Your task to perform on an android device: Search for flights from Sydney to Helsinki Image 0: 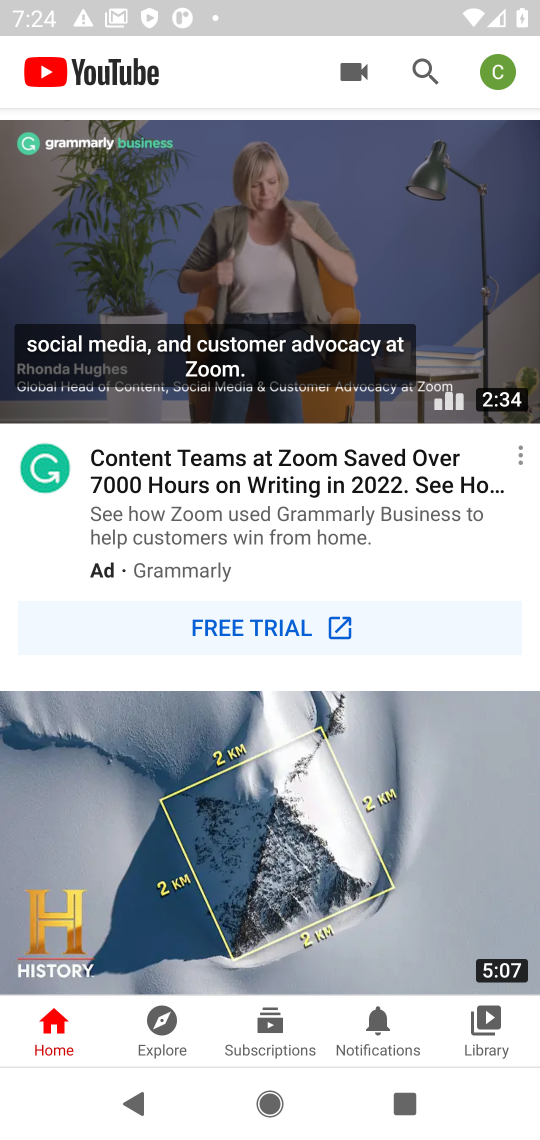
Step 0: press back button
Your task to perform on an android device: Search for flights from Sydney to Helsinki Image 1: 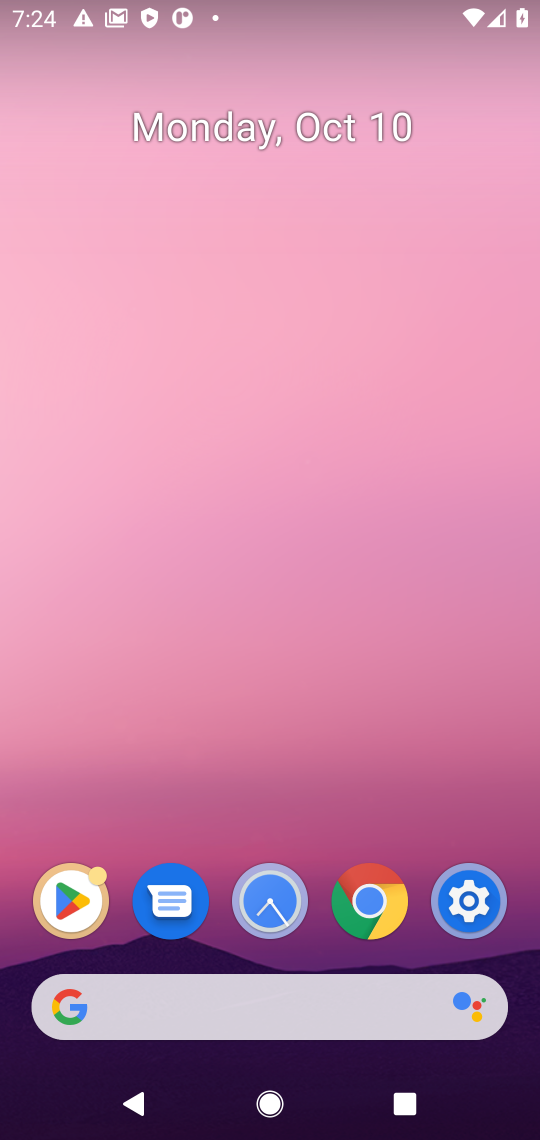
Step 1: press back button
Your task to perform on an android device: Search for flights from Sydney to Helsinki Image 2: 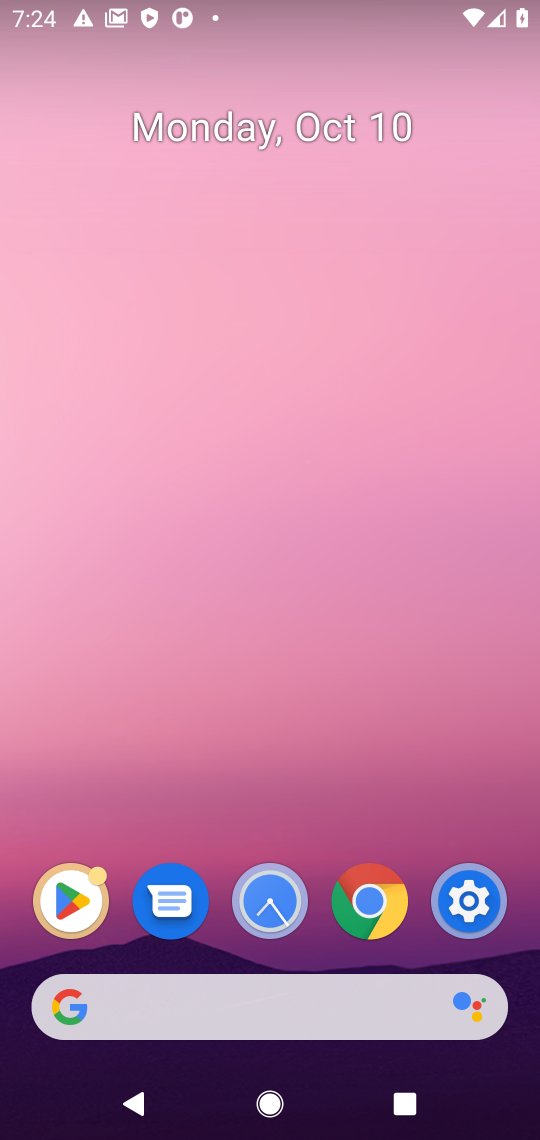
Step 2: click (259, 1001)
Your task to perform on an android device: Search for flights from Sydney to Helsinki Image 3: 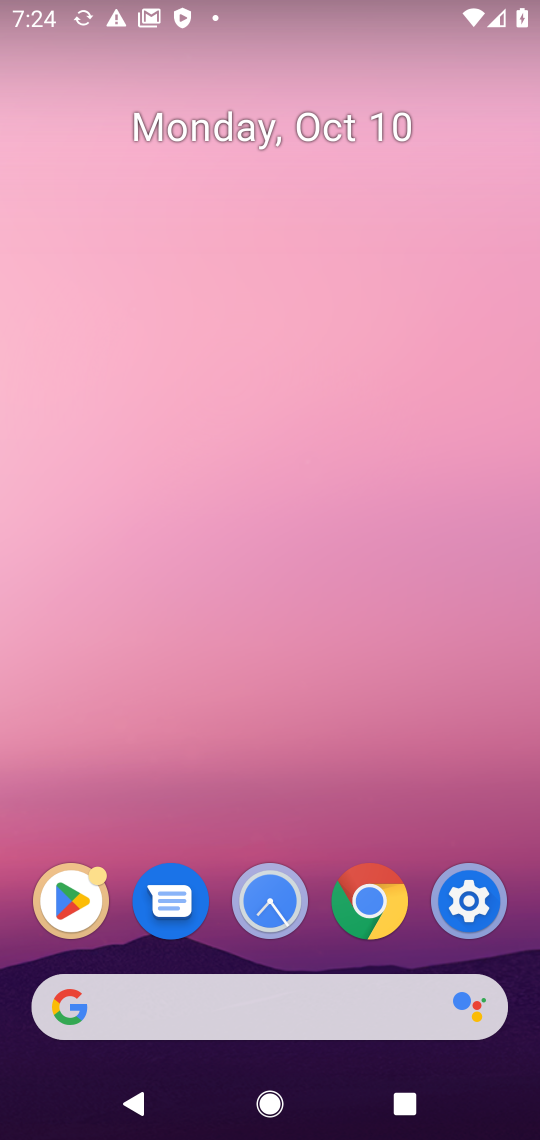
Step 3: click (241, 998)
Your task to perform on an android device: Search for flights from Sydney to Helsinki Image 4: 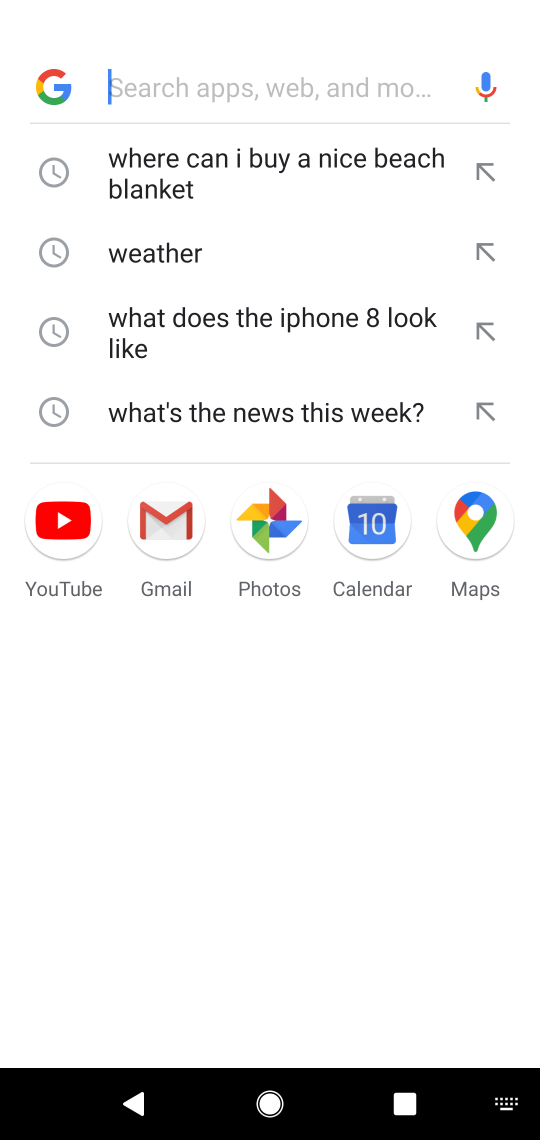
Step 4: type "flights from Sydney to Hel"
Your task to perform on an android device: Search for flights from Sydney to Helsinki Image 5: 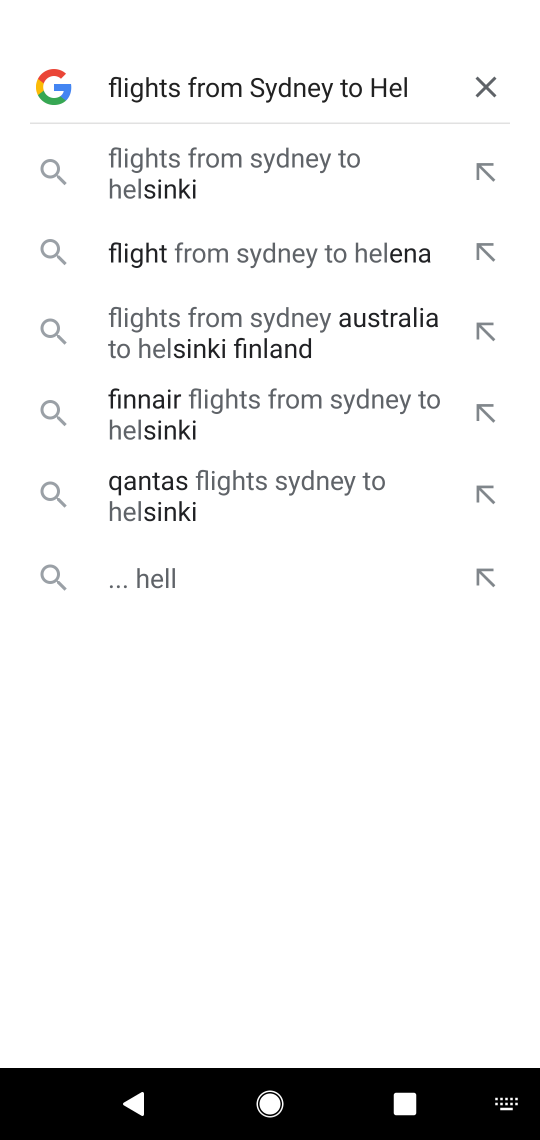
Step 5: type "flights from Sydney to Helsinki"
Your task to perform on an android device: Search for flights from Sydney to Helsinki Image 6: 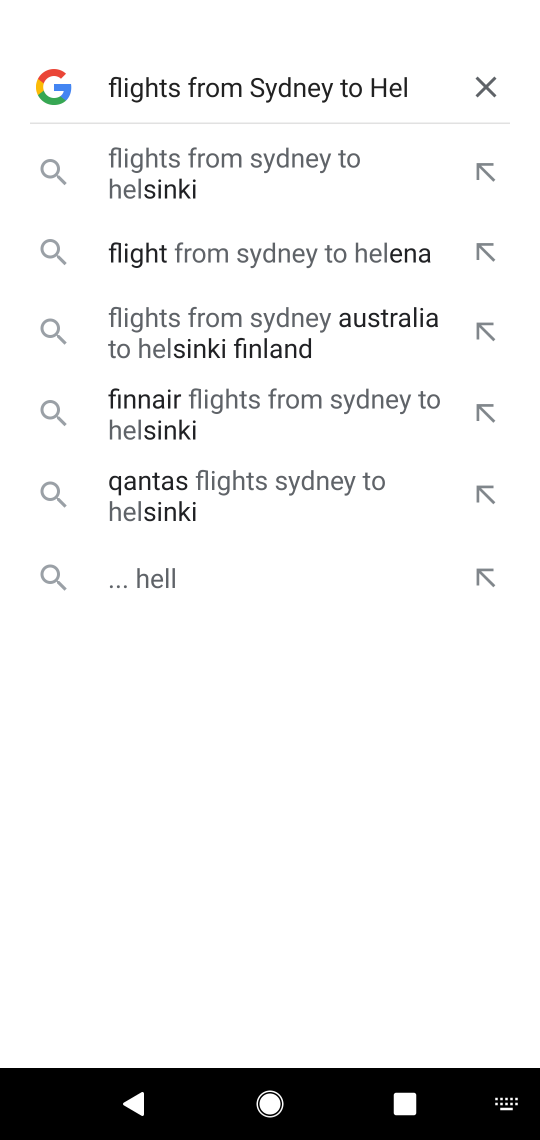
Step 6: click (162, 184)
Your task to perform on an android device: Search for flights from Sydney to Helsinki Image 7: 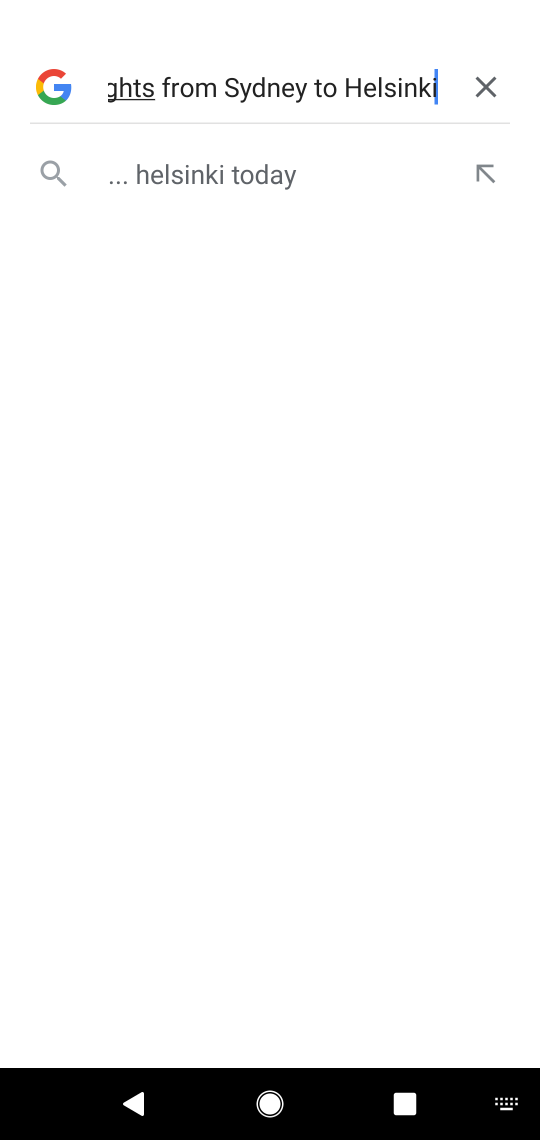
Step 7: type ""
Your task to perform on an android device: Search for flights from Sydney to Helsinki Image 8: 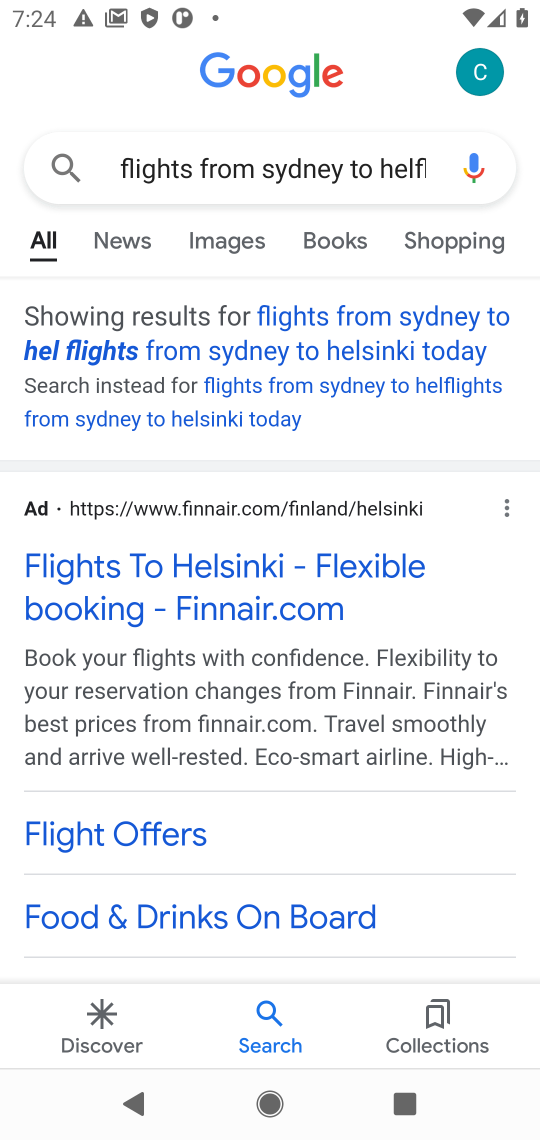
Step 8: drag from (326, 833) to (303, 323)
Your task to perform on an android device: Search for flights from Sydney to Helsinki Image 9: 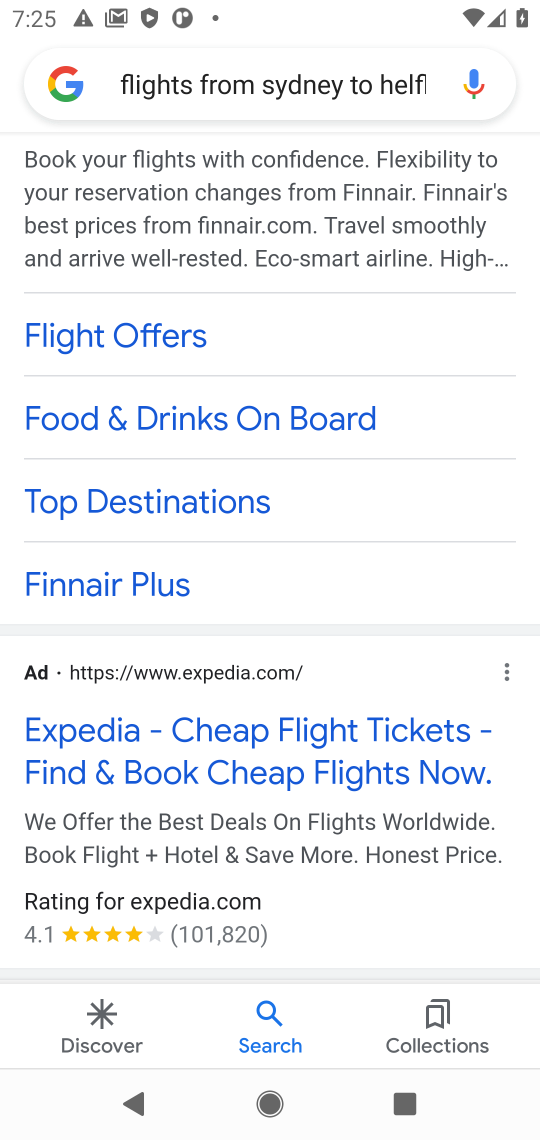
Step 9: drag from (346, 915) to (301, 346)
Your task to perform on an android device: Search for flights from Sydney to Helsinki Image 10: 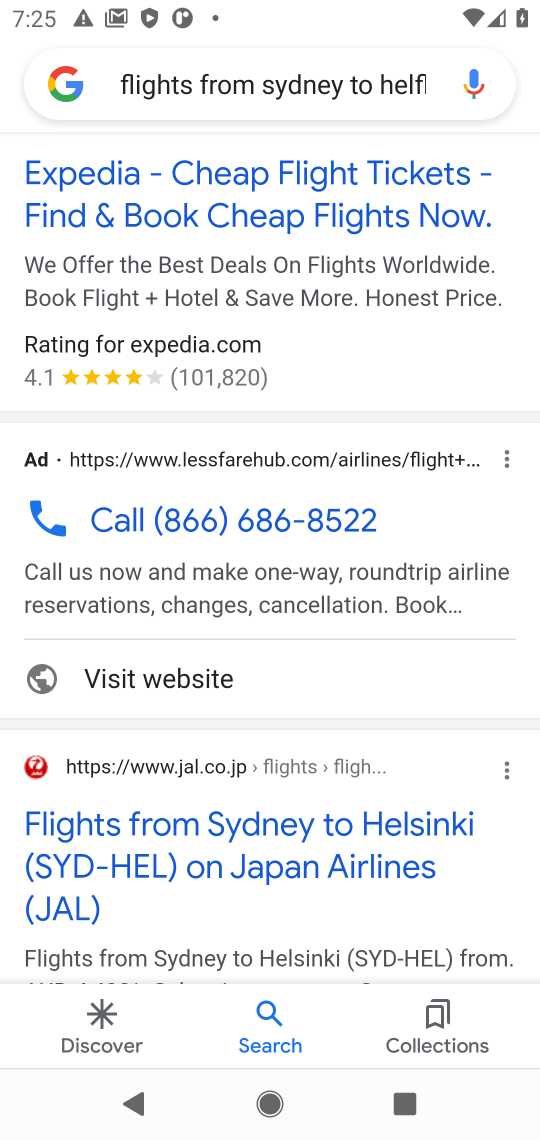
Step 10: drag from (368, 763) to (307, 430)
Your task to perform on an android device: Search for flights from Sydney to Helsinki Image 11: 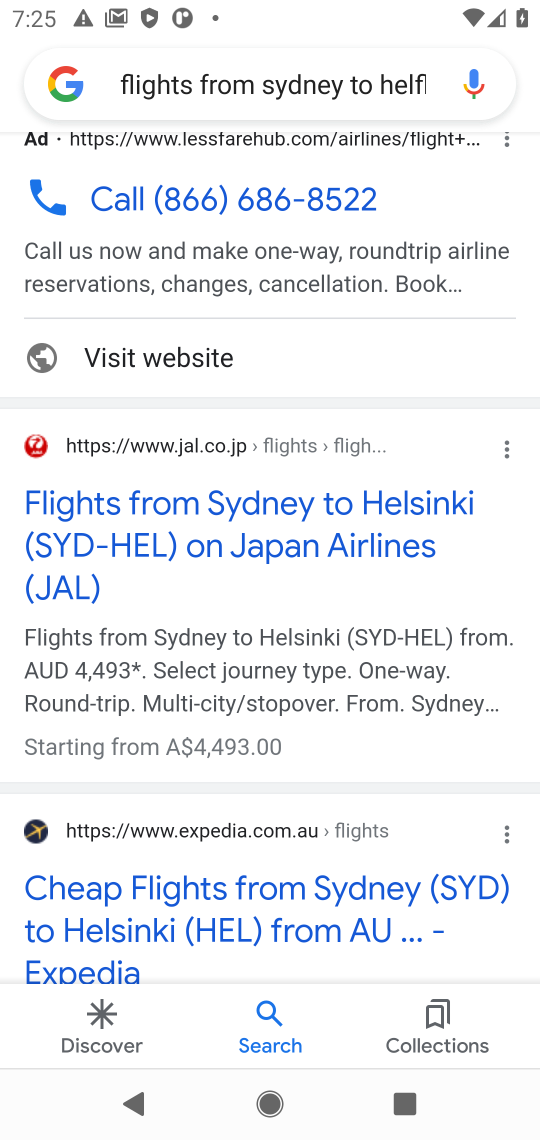
Step 11: drag from (404, 825) to (389, 678)
Your task to perform on an android device: Search for flights from Sydney to Helsinki Image 12: 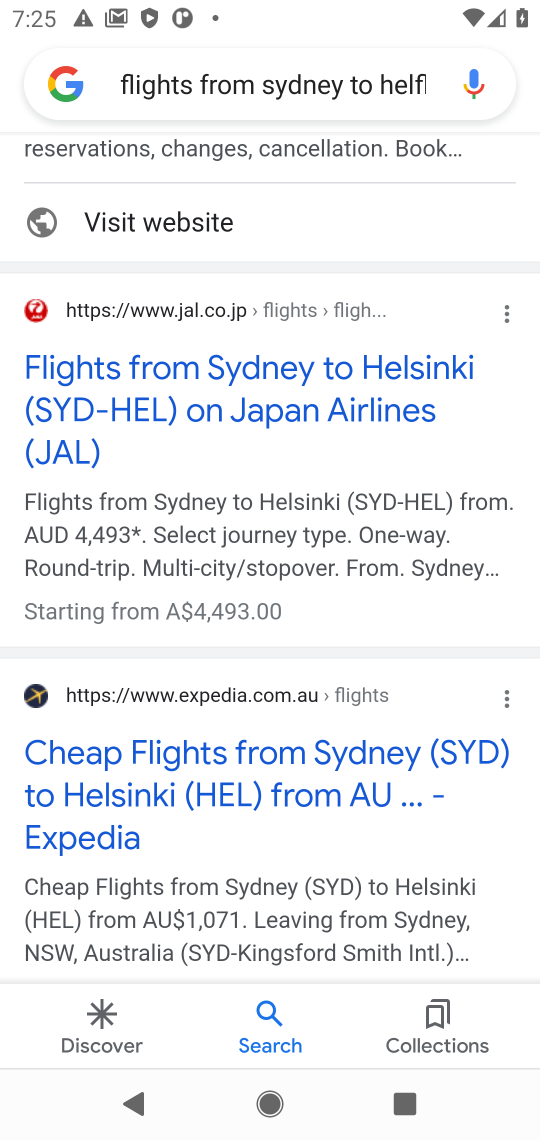
Step 12: click (180, 409)
Your task to perform on an android device: Search for flights from Sydney to Helsinki Image 13: 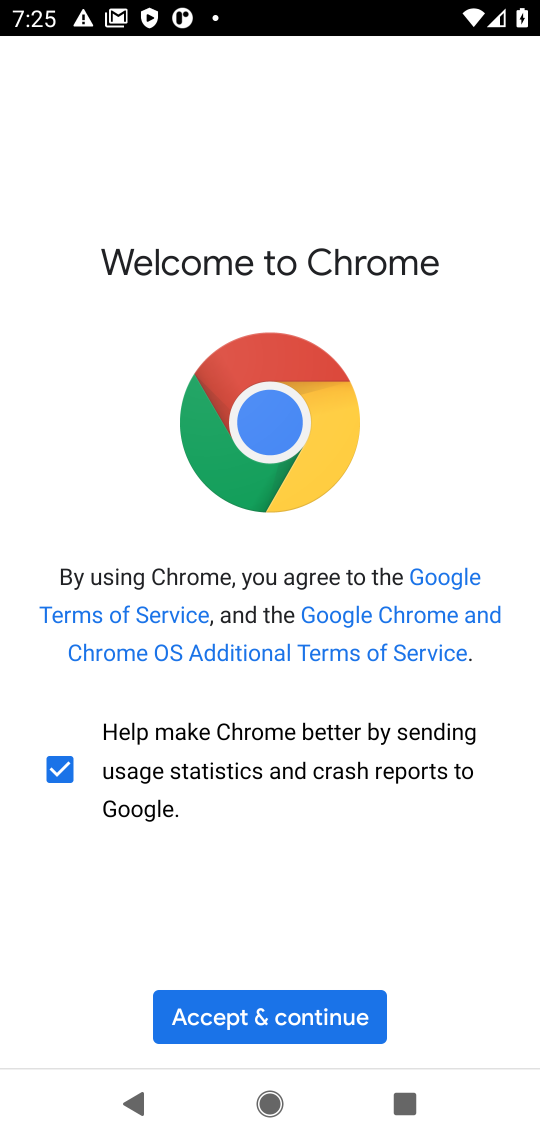
Step 13: click (339, 1024)
Your task to perform on an android device: Search for flights from Sydney to Helsinki Image 14: 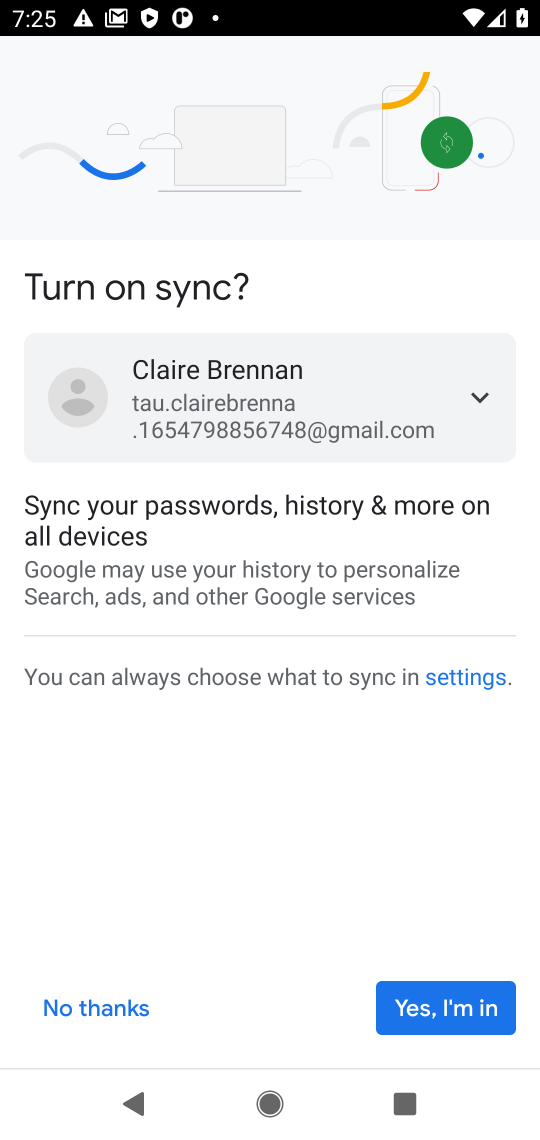
Step 14: click (422, 993)
Your task to perform on an android device: Search for flights from Sydney to Helsinki Image 15: 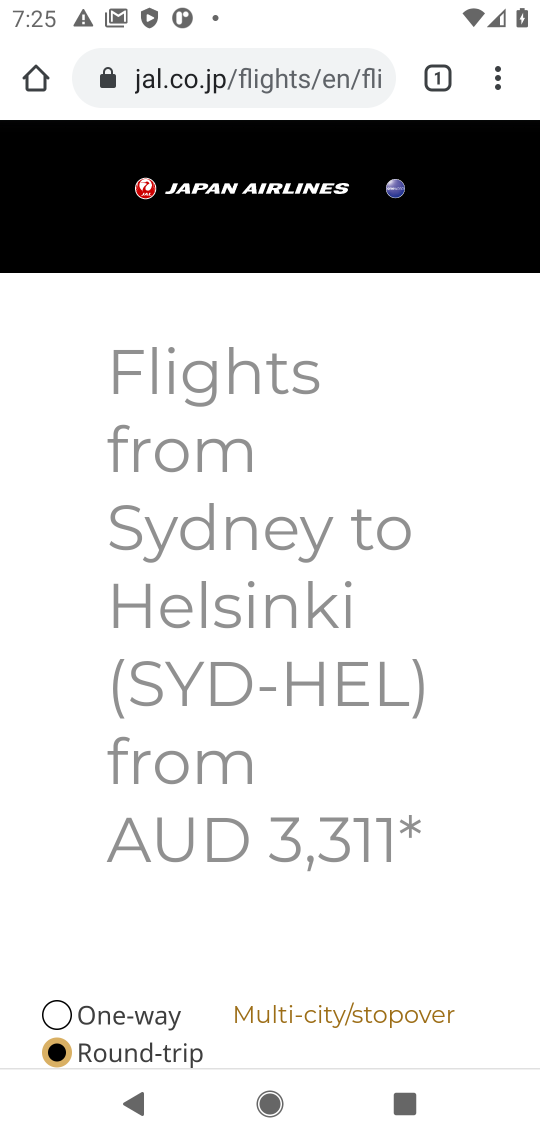
Step 15: task complete